Your task to perform on an android device: Add "acer nitro" to the cart on walmart Image 0: 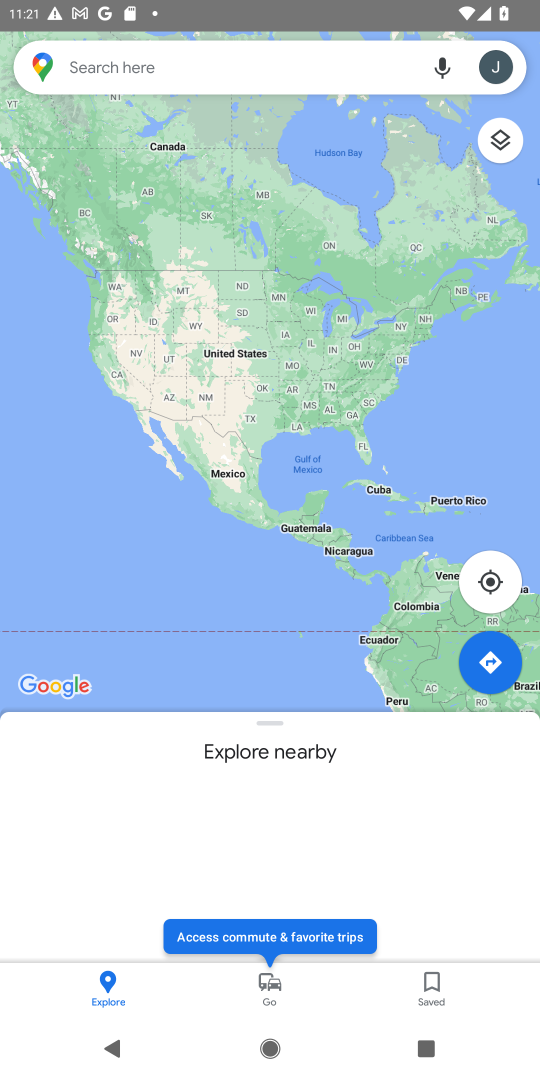
Step 0: press home button
Your task to perform on an android device: Add "acer nitro" to the cart on walmart Image 1: 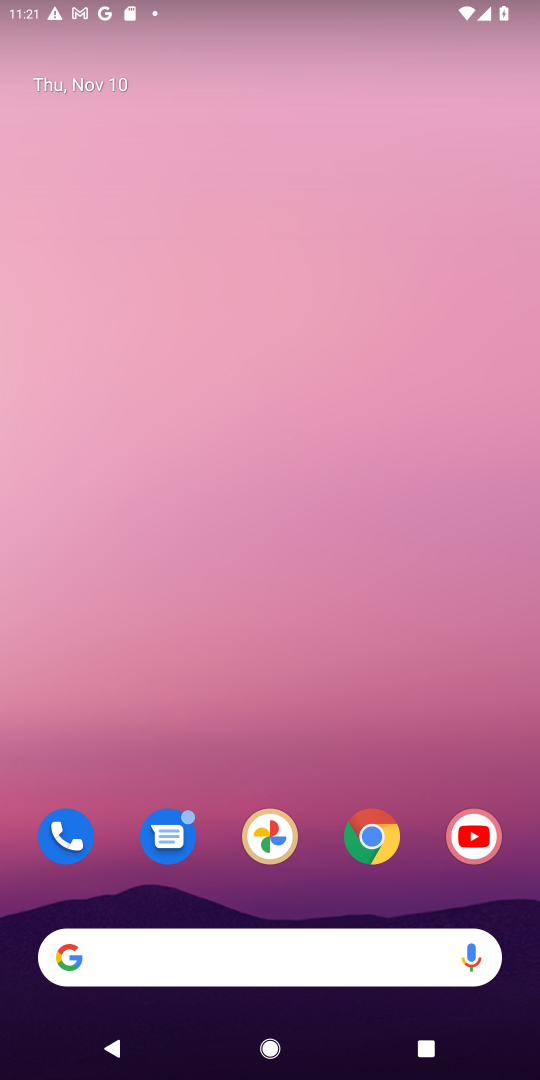
Step 1: click (251, 951)
Your task to perform on an android device: Add "acer nitro" to the cart on walmart Image 2: 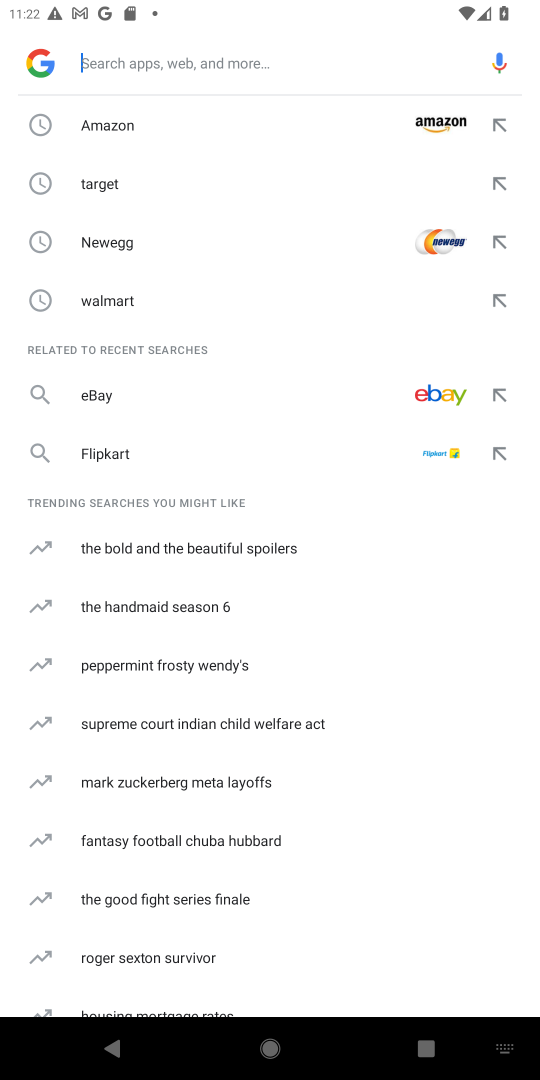
Step 2: click (112, 292)
Your task to perform on an android device: Add "acer nitro" to the cart on walmart Image 3: 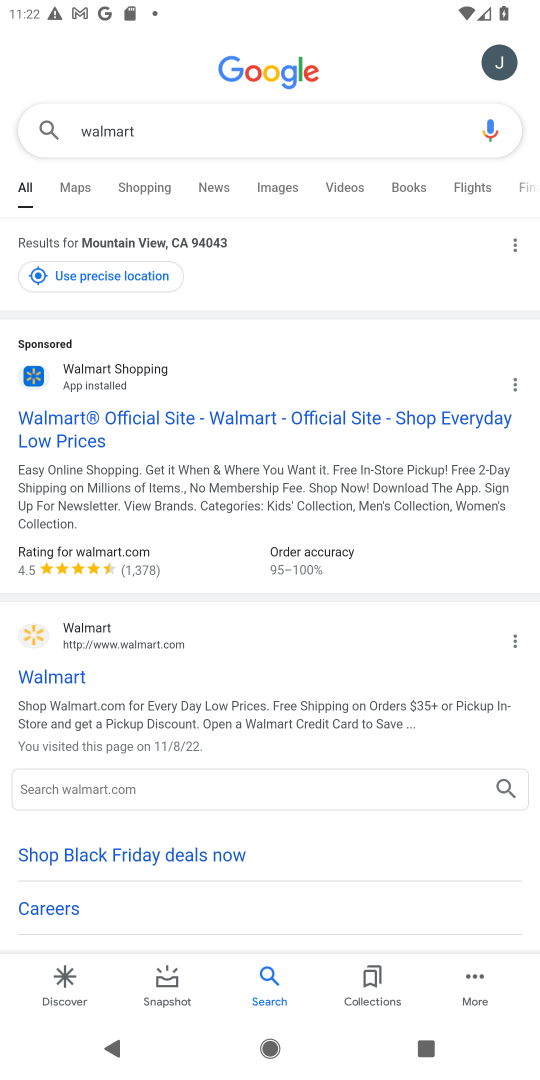
Step 3: click (78, 364)
Your task to perform on an android device: Add "acer nitro" to the cart on walmart Image 4: 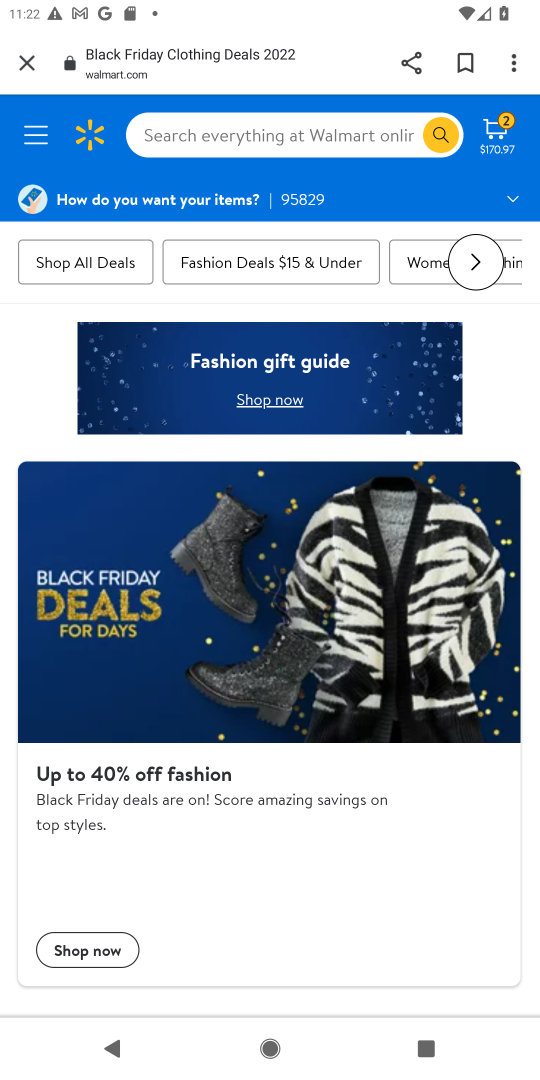
Step 4: click (248, 134)
Your task to perform on an android device: Add "acer nitro" to the cart on walmart Image 5: 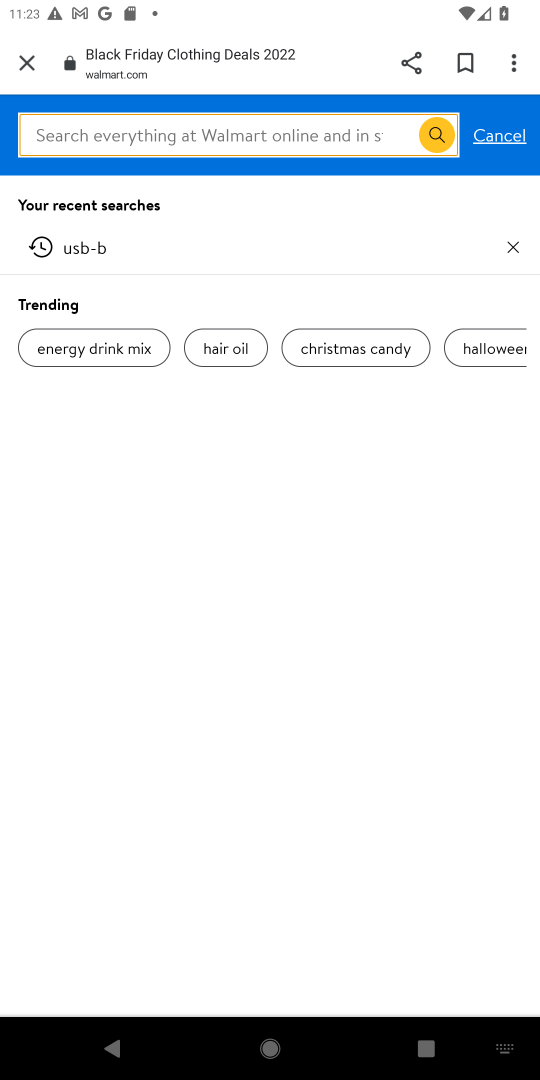
Step 5: type "acer nitro"
Your task to perform on an android device: Add "acer nitro" to the cart on walmart Image 6: 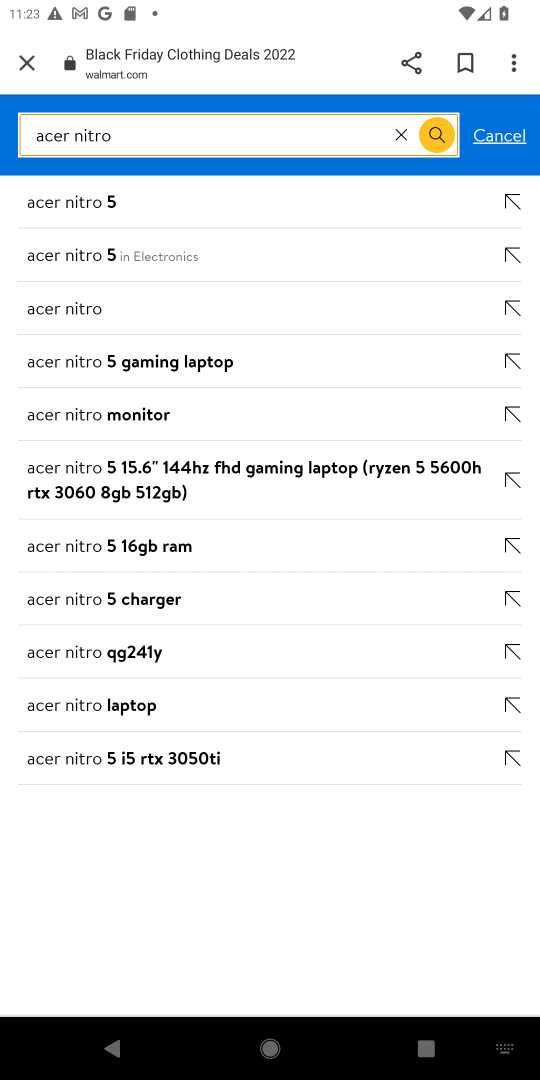
Step 6: click (89, 306)
Your task to perform on an android device: Add "acer nitro" to the cart on walmart Image 7: 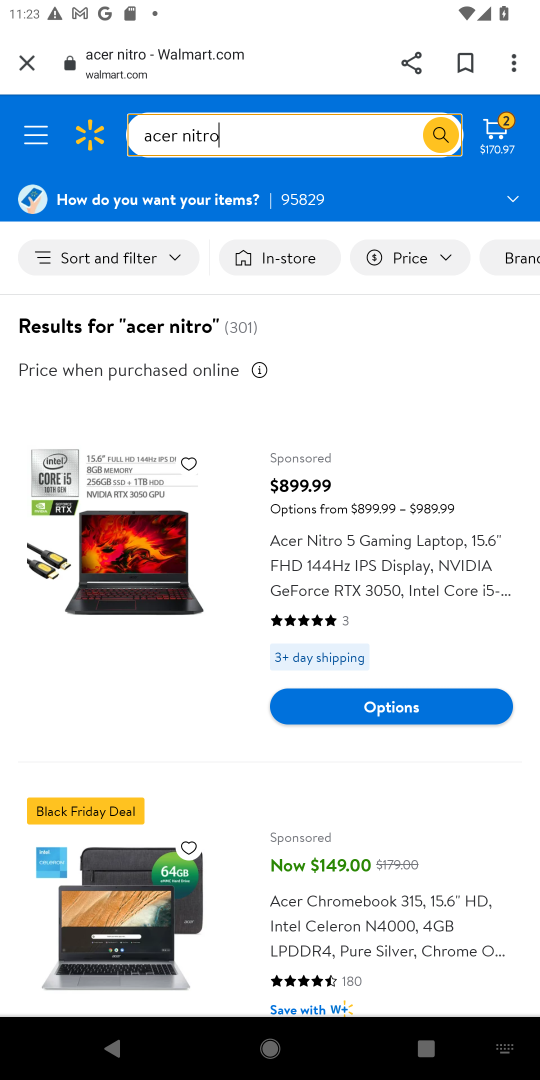
Step 7: click (398, 707)
Your task to perform on an android device: Add "acer nitro" to the cart on walmart Image 8: 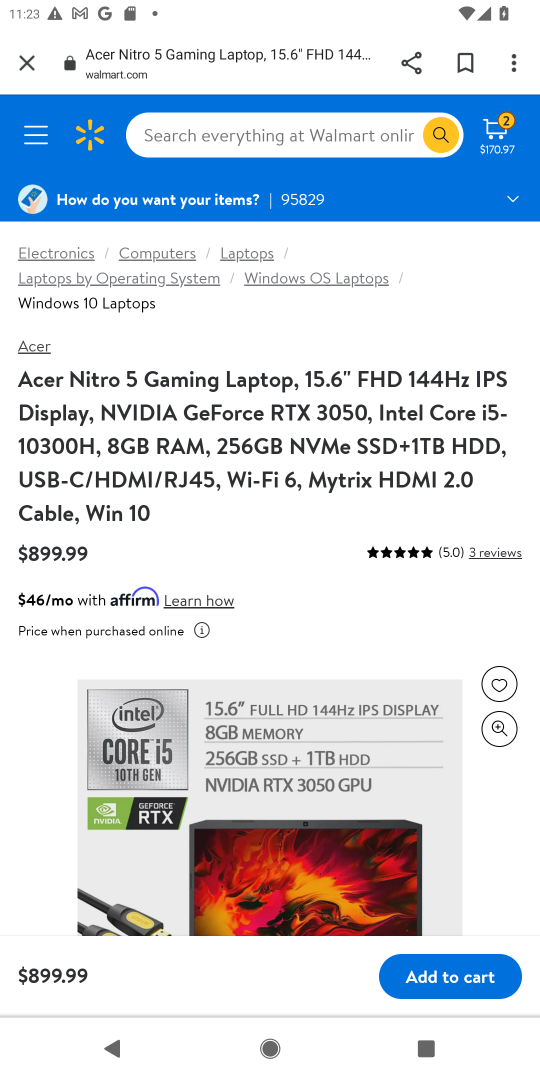
Step 8: click (428, 987)
Your task to perform on an android device: Add "acer nitro" to the cart on walmart Image 9: 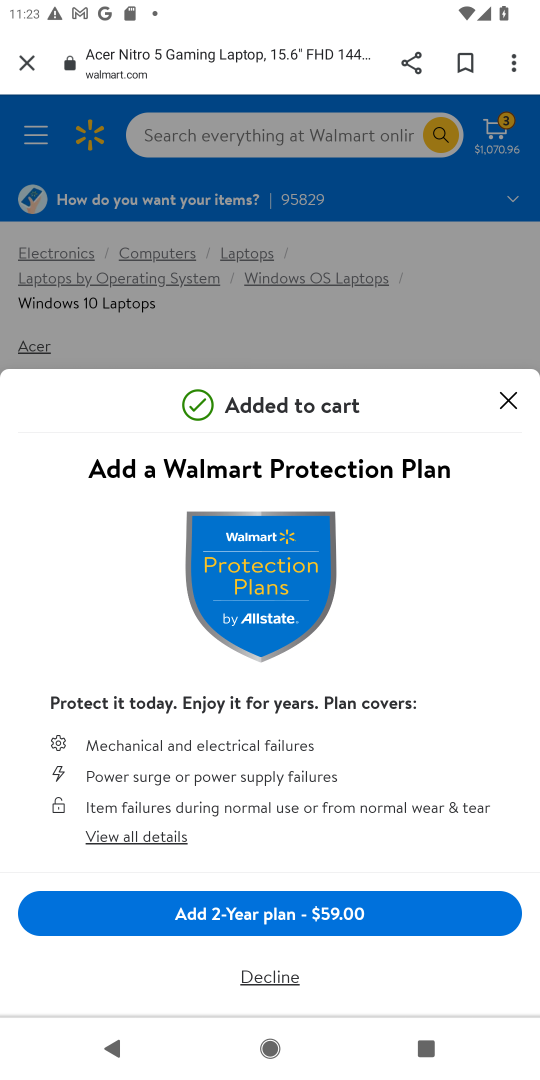
Step 9: click (501, 393)
Your task to perform on an android device: Add "acer nitro" to the cart on walmart Image 10: 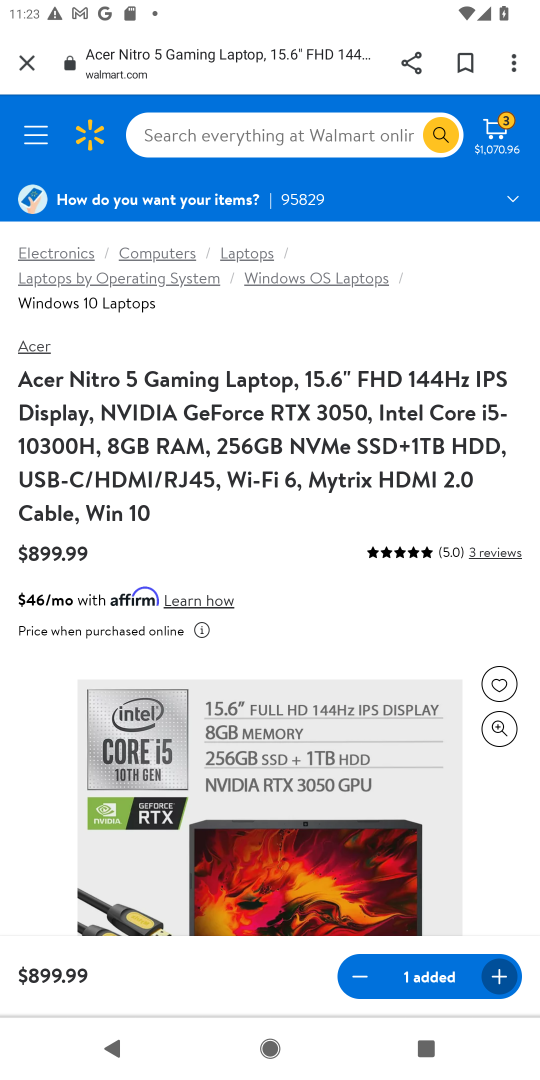
Step 10: task complete